Your task to perform on an android device: turn off notifications in google photos Image 0: 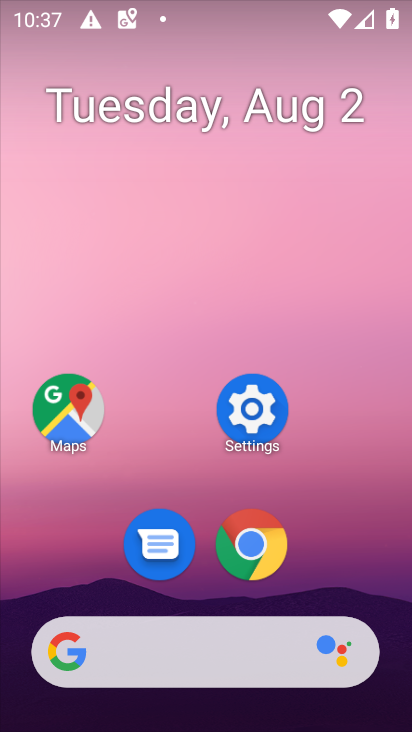
Step 0: drag from (229, 626) to (329, 12)
Your task to perform on an android device: turn off notifications in google photos Image 1: 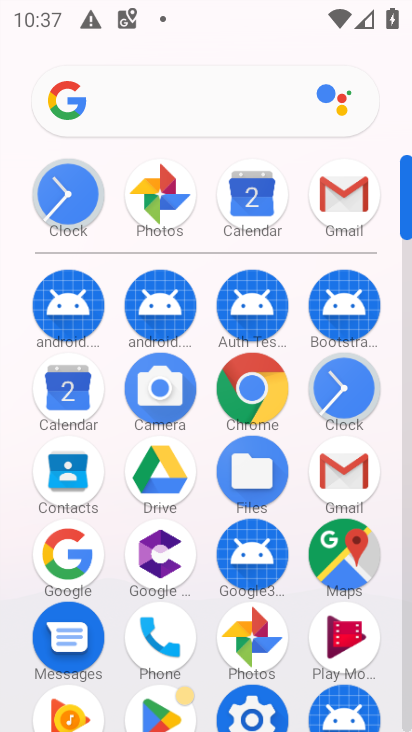
Step 1: click (256, 633)
Your task to perform on an android device: turn off notifications in google photos Image 2: 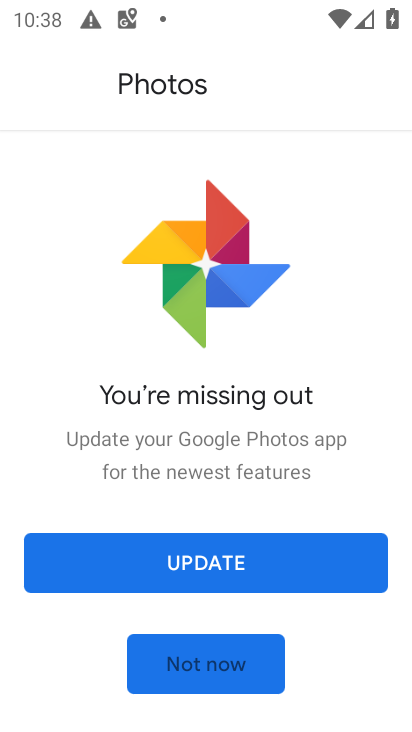
Step 2: click (220, 561)
Your task to perform on an android device: turn off notifications in google photos Image 3: 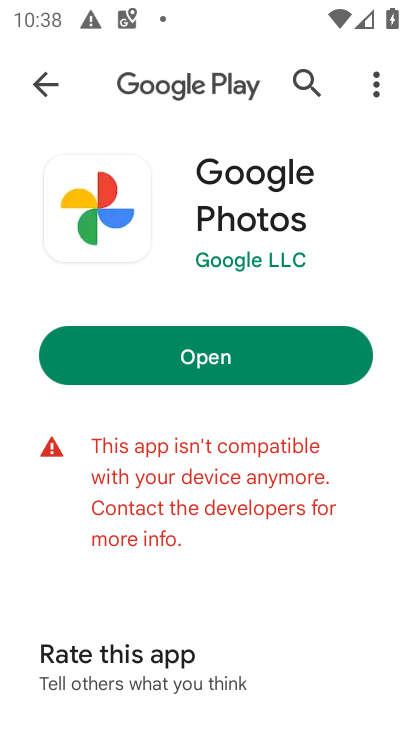
Step 3: click (258, 359)
Your task to perform on an android device: turn off notifications in google photos Image 4: 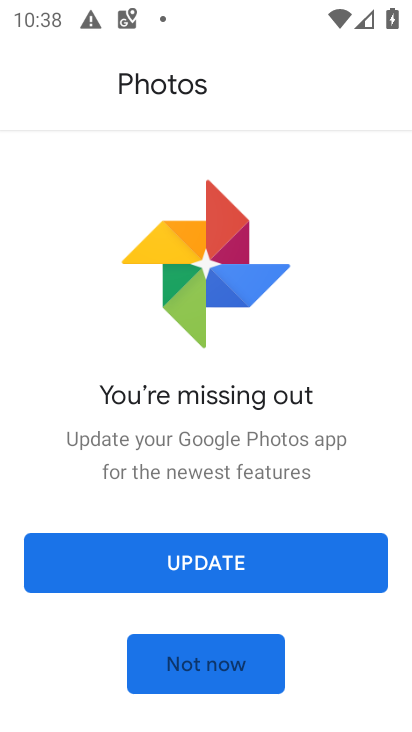
Step 4: task complete